Your task to perform on an android device: Clear the cart on ebay. Image 0: 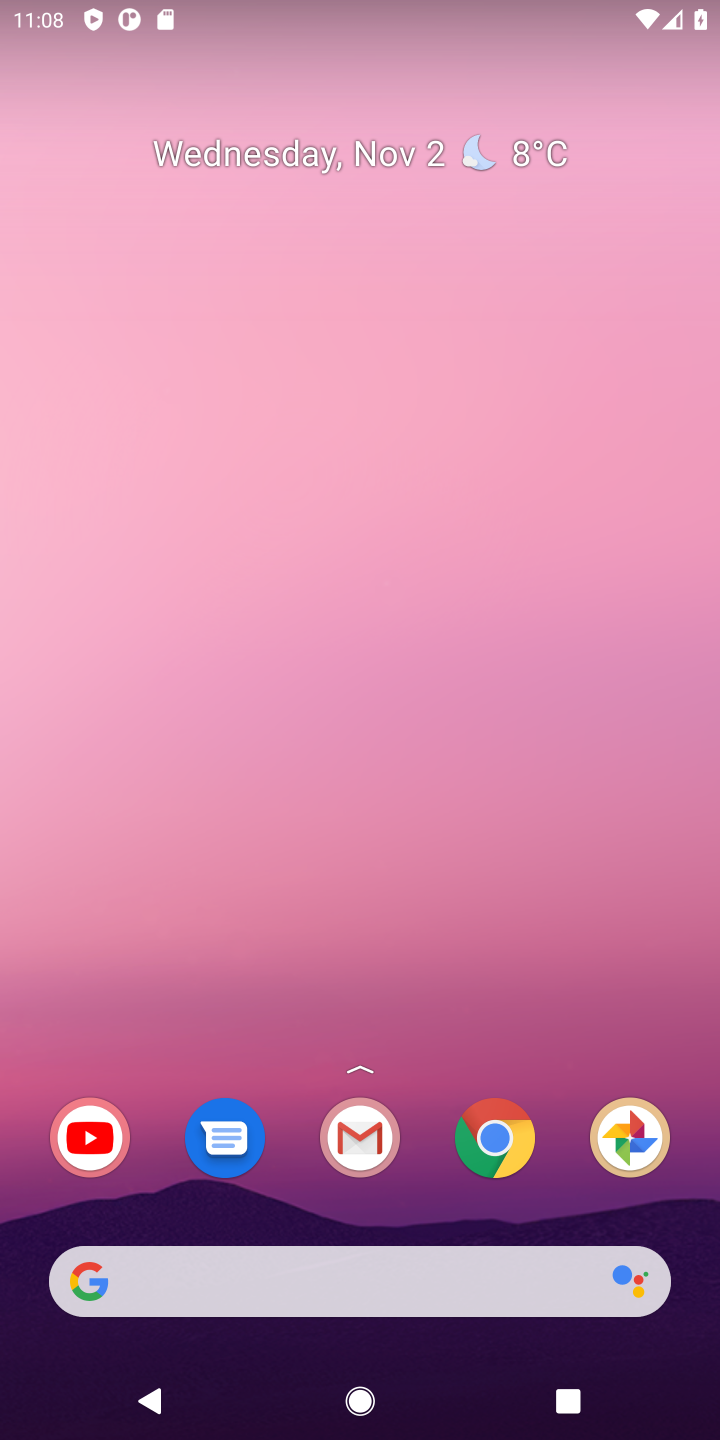
Step 0: click (492, 1146)
Your task to perform on an android device: Clear the cart on ebay. Image 1: 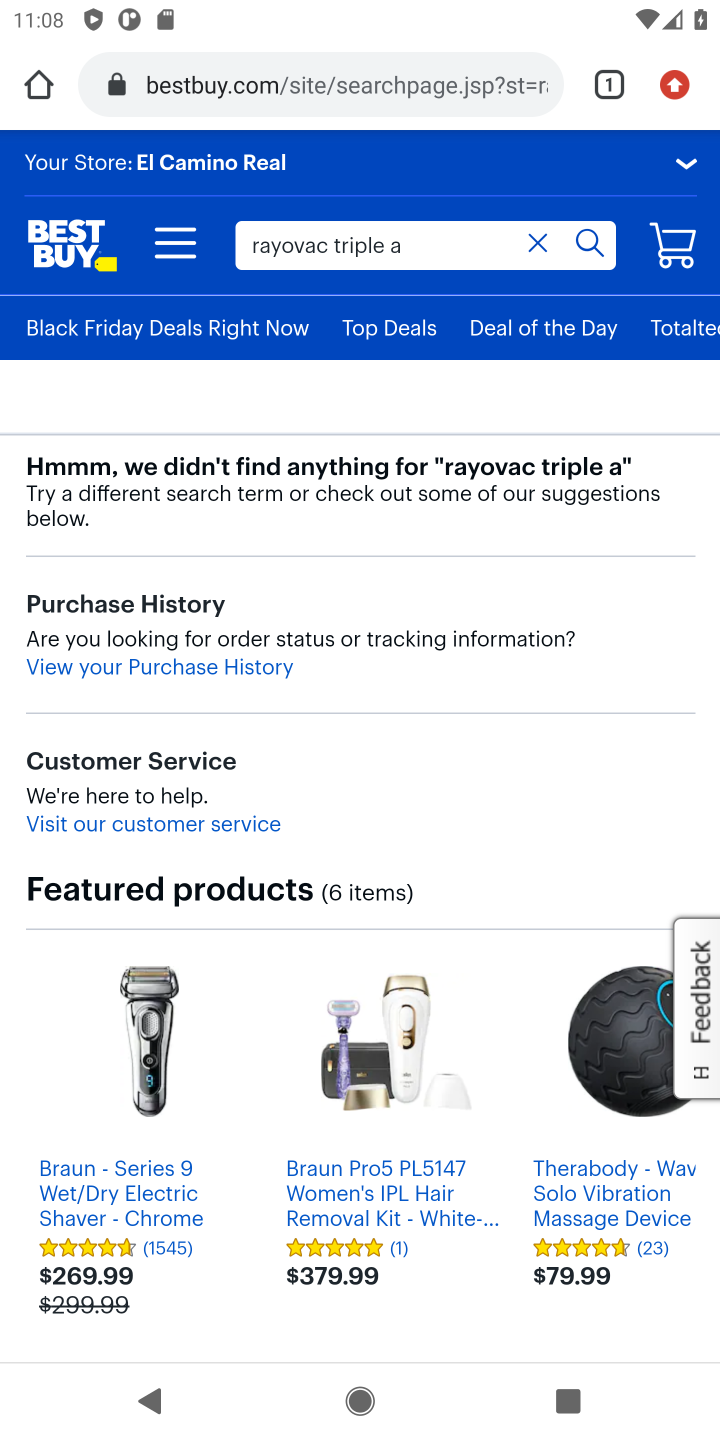
Step 1: click (334, 63)
Your task to perform on an android device: Clear the cart on ebay. Image 2: 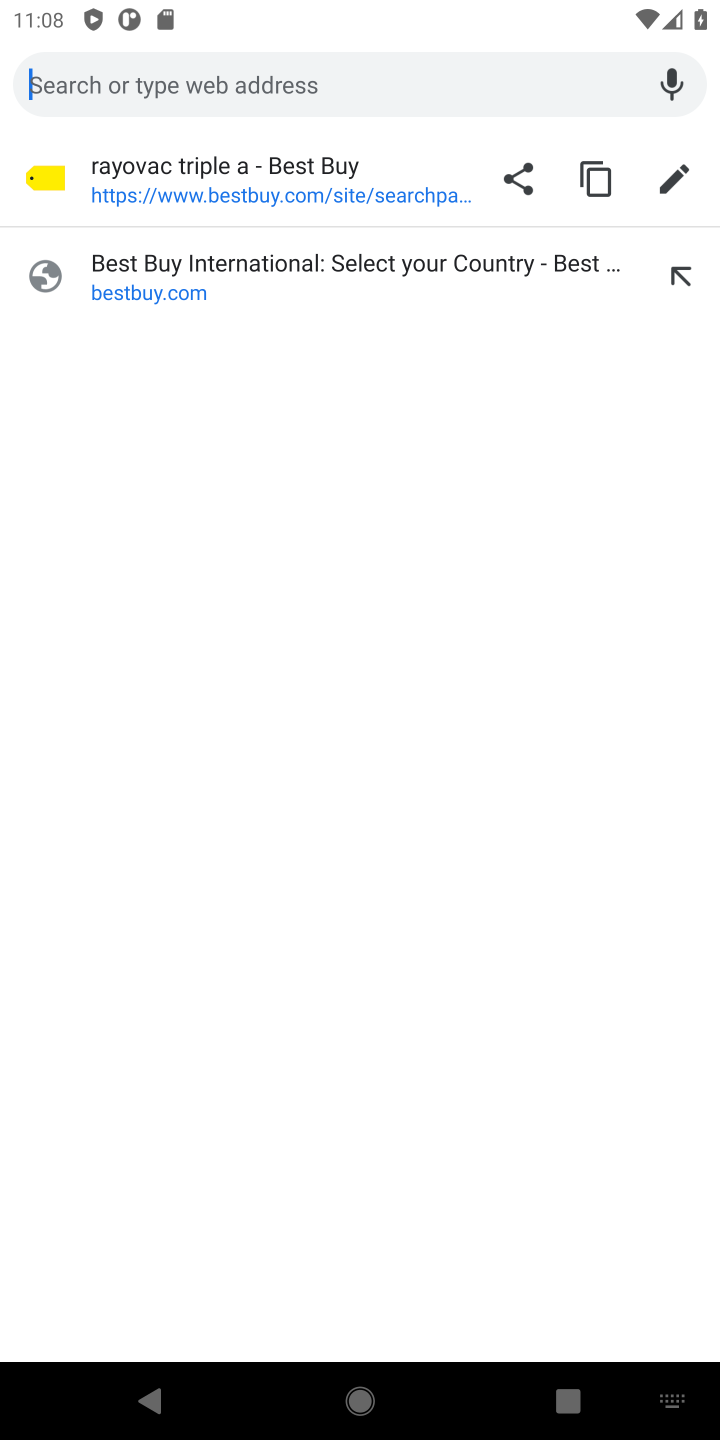
Step 2: type "ebay"
Your task to perform on an android device: Clear the cart on ebay. Image 3: 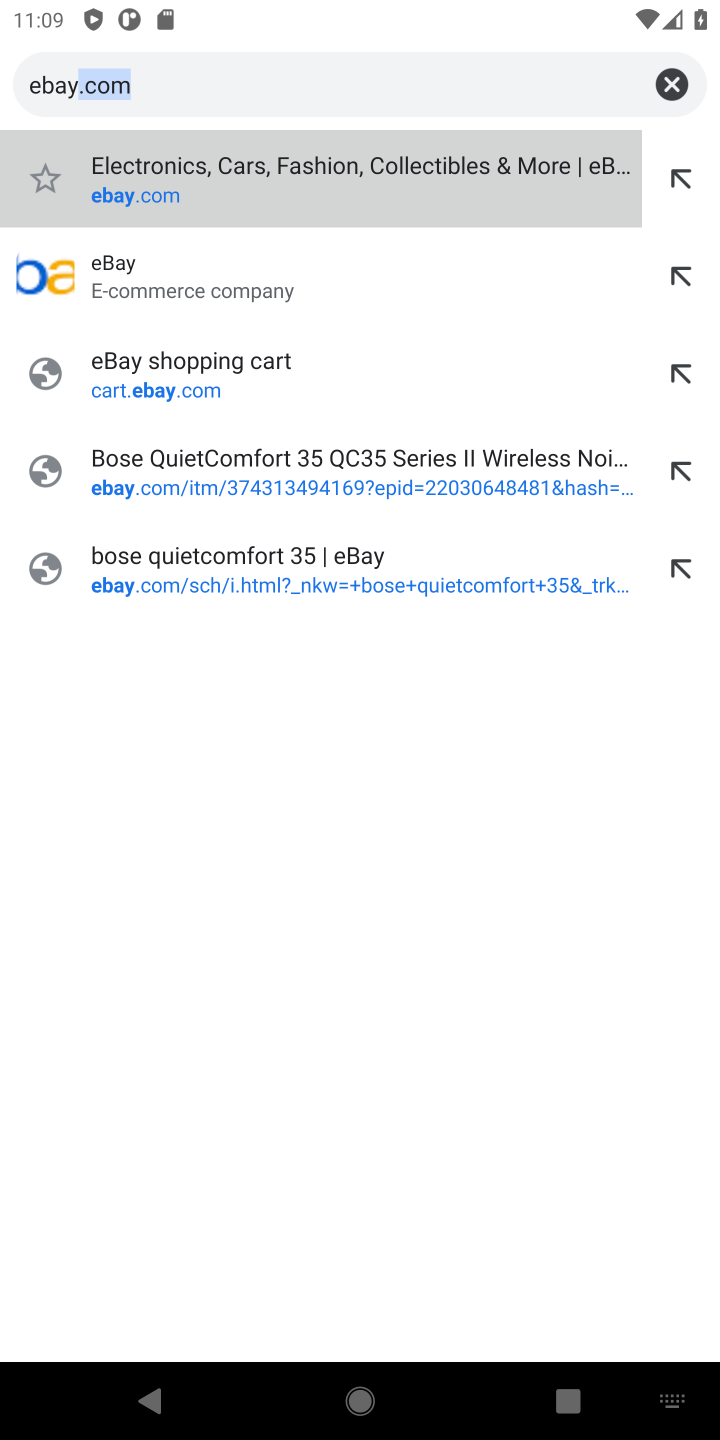
Step 3: click (146, 289)
Your task to perform on an android device: Clear the cart on ebay. Image 4: 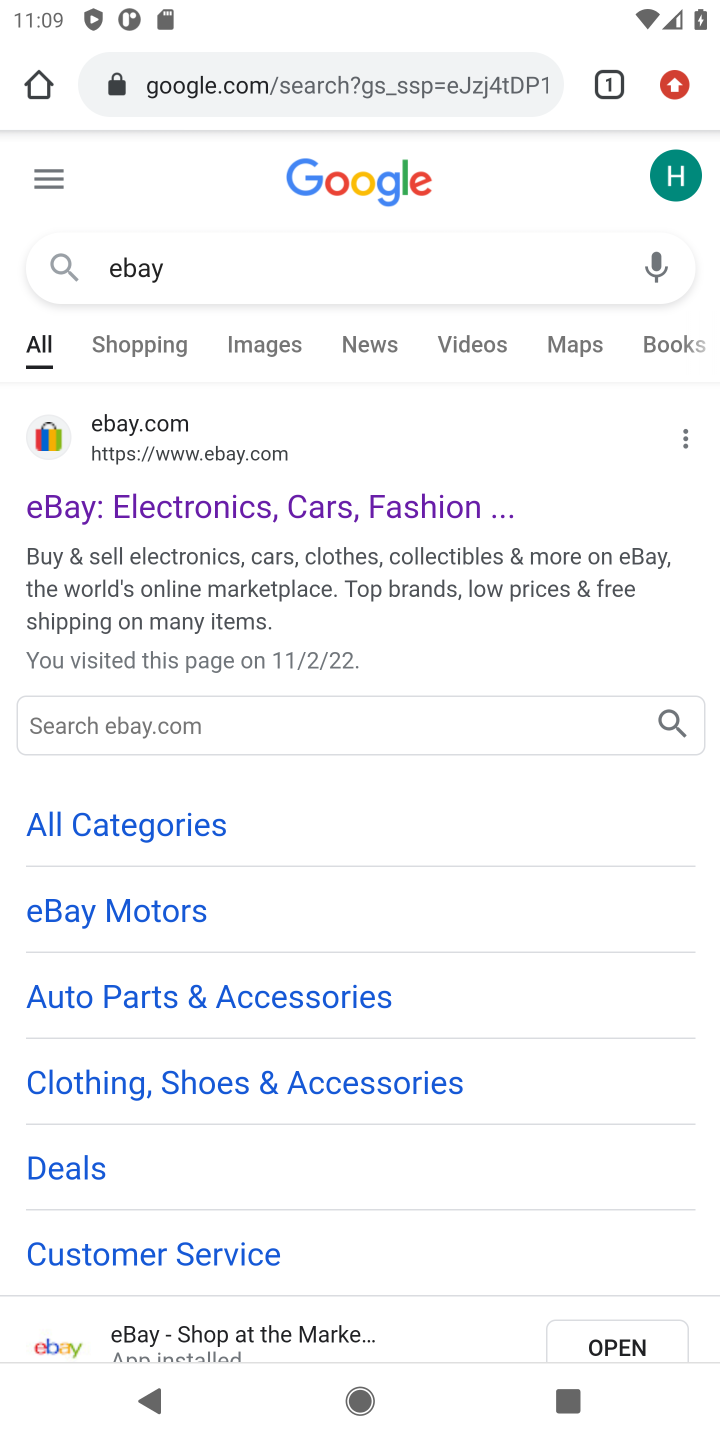
Step 4: click (48, 508)
Your task to perform on an android device: Clear the cart on ebay. Image 5: 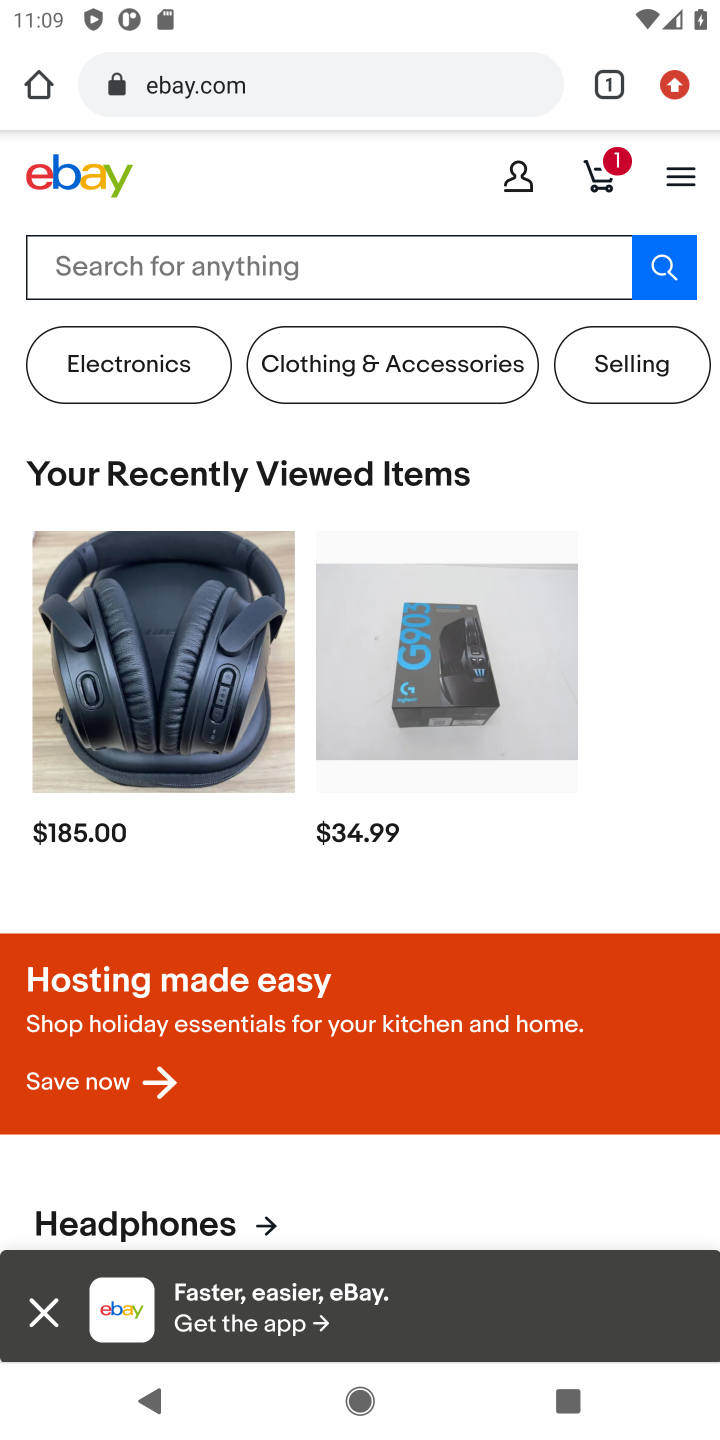
Step 5: click (606, 174)
Your task to perform on an android device: Clear the cart on ebay. Image 6: 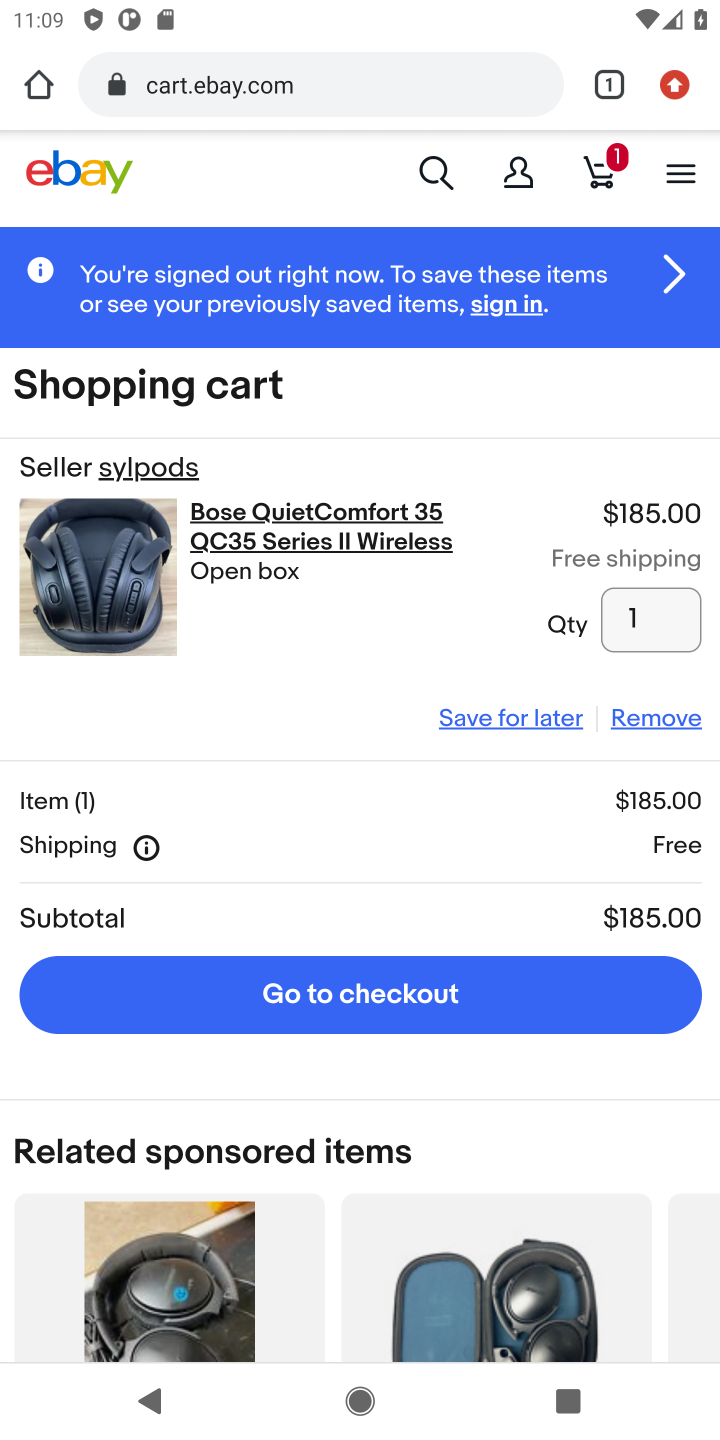
Step 6: click (657, 728)
Your task to perform on an android device: Clear the cart on ebay. Image 7: 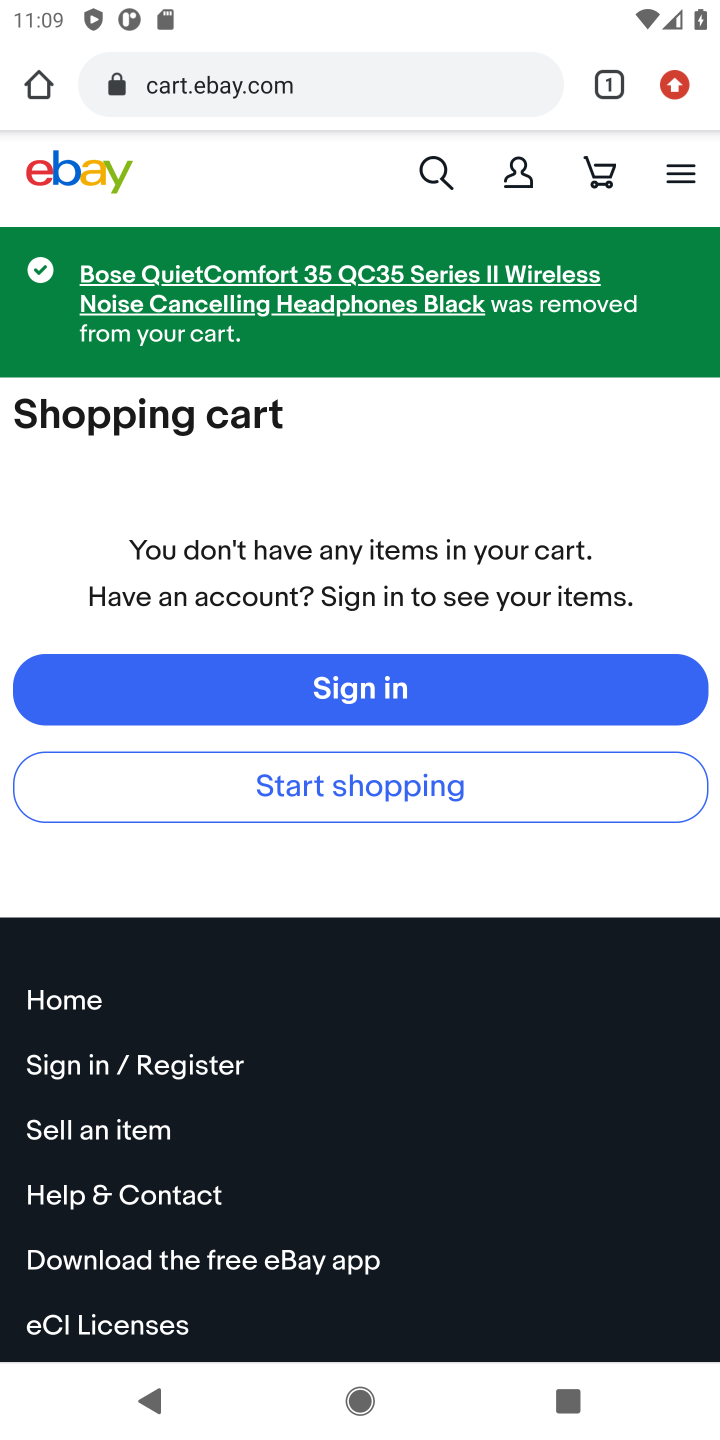
Step 7: task complete